Your task to perform on an android device: Search for a new foundation (skincare) product Image 0: 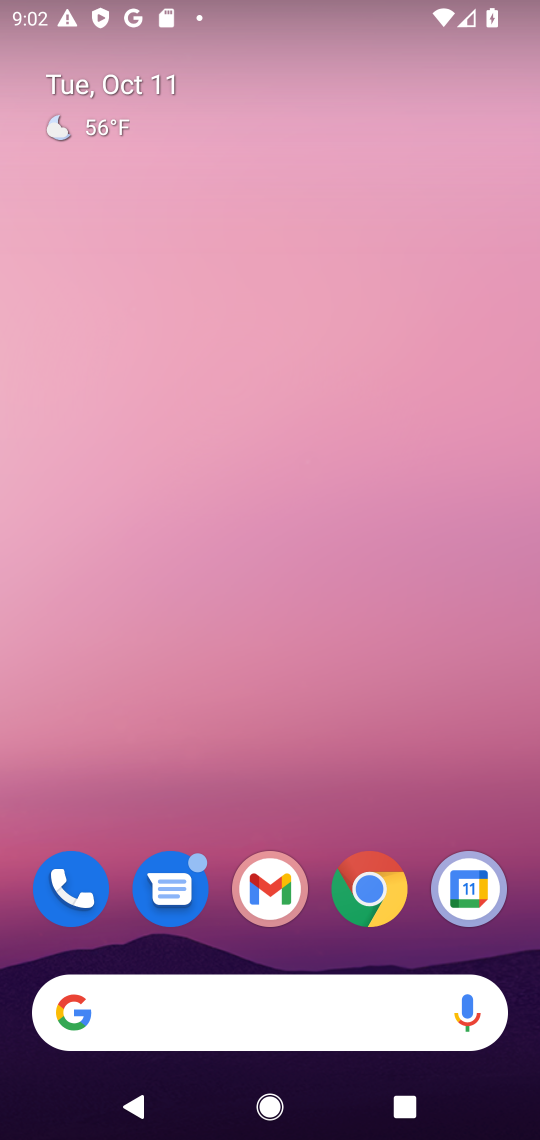
Step 0: click (201, 1008)
Your task to perform on an android device: Search for a new foundation (skincare) product Image 1: 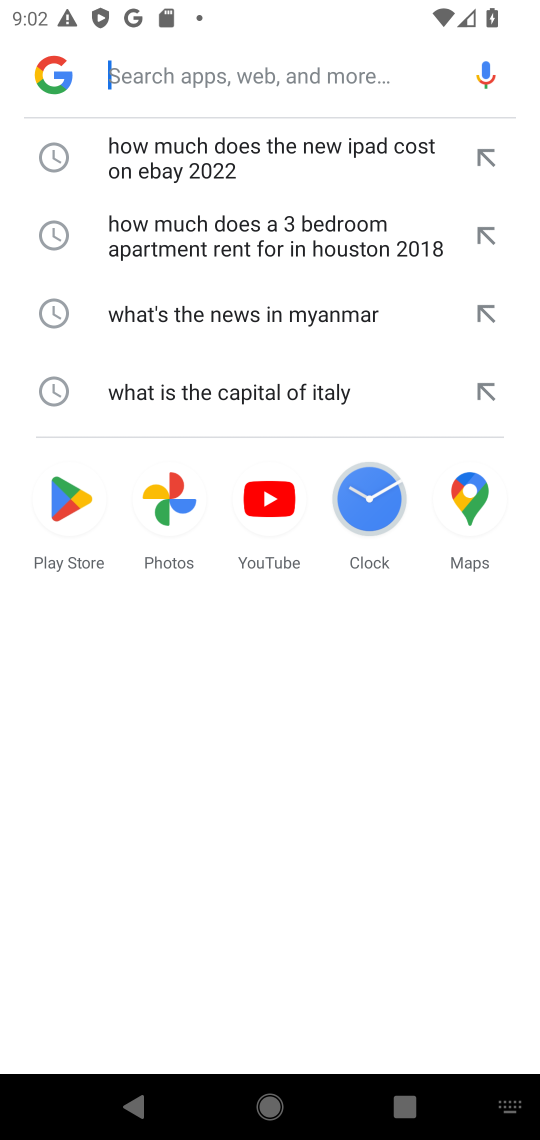
Step 1: click (156, 27)
Your task to perform on an android device: Search for a new foundation (skincare) product Image 2: 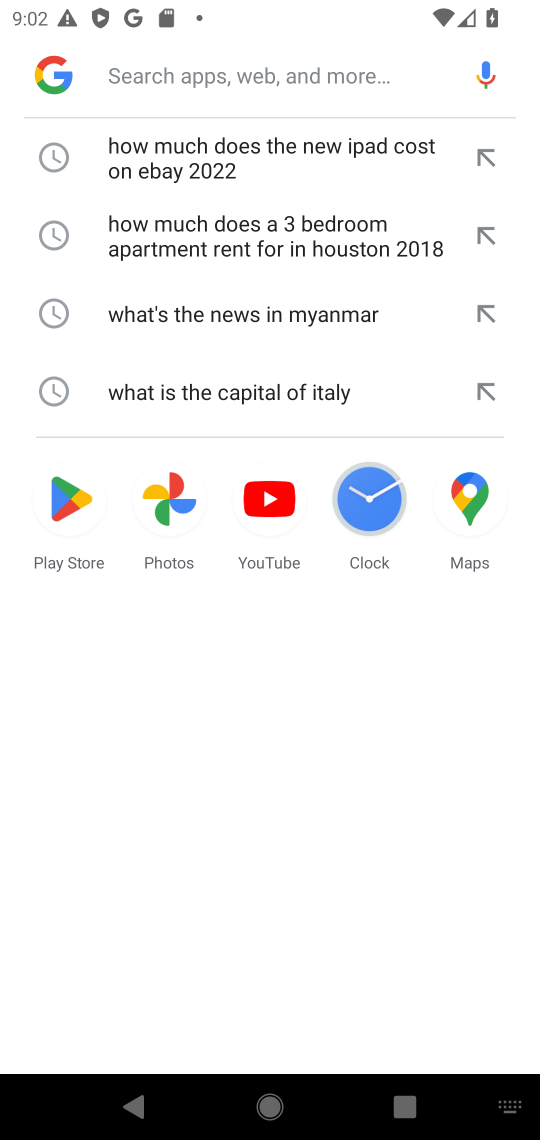
Step 2: click (148, 69)
Your task to perform on an android device: Search for a new foundation (skincare) product Image 3: 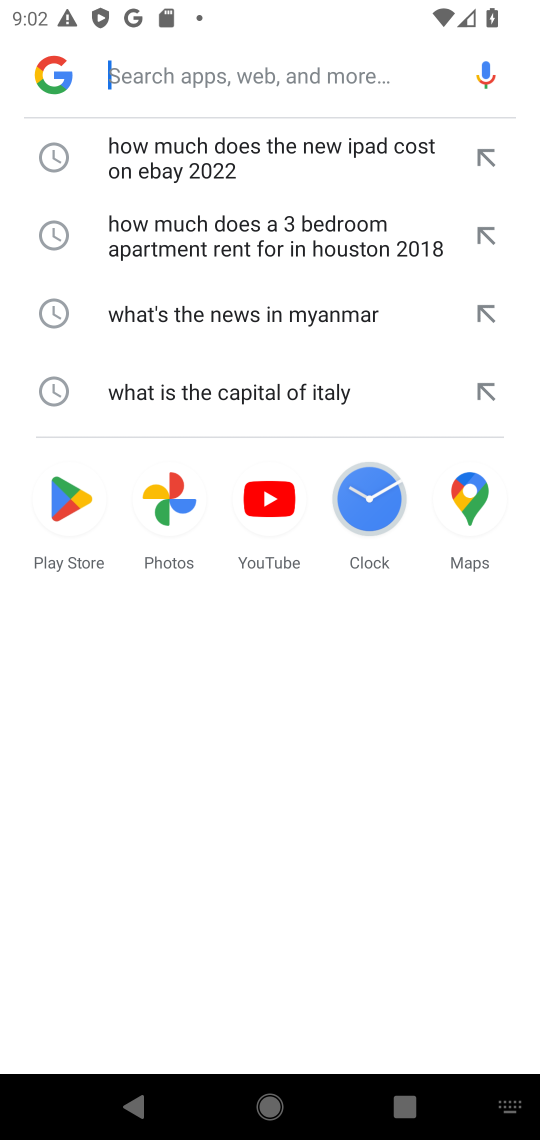
Step 3: type "new foundation (skincare) product"
Your task to perform on an android device: Search for a new foundation (skincare) product Image 4: 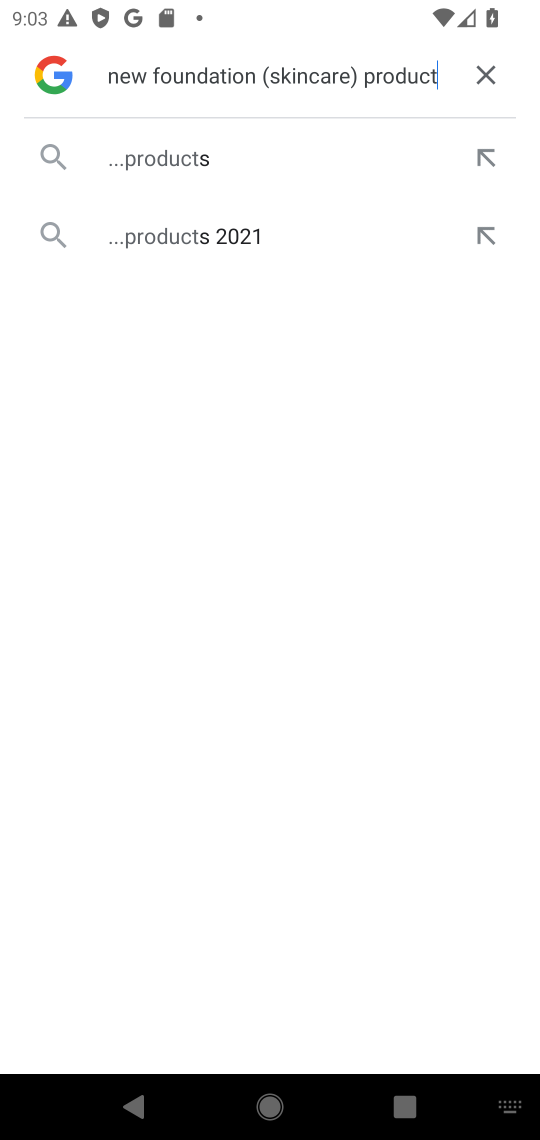
Step 4: click (157, 144)
Your task to perform on an android device: Search for a new foundation (skincare) product Image 5: 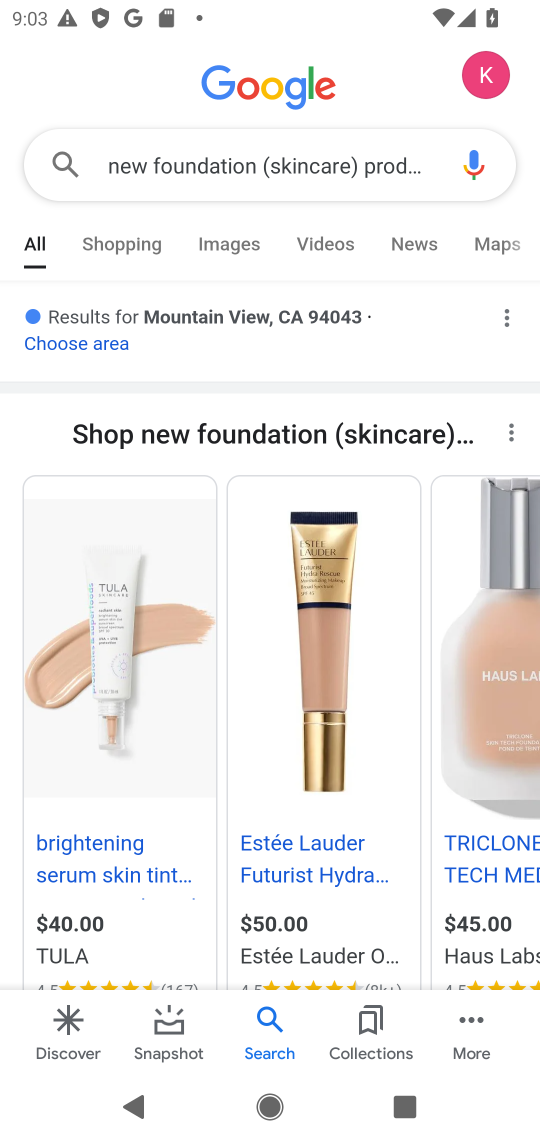
Step 5: task complete